Your task to perform on an android device: See recent photos Image 0: 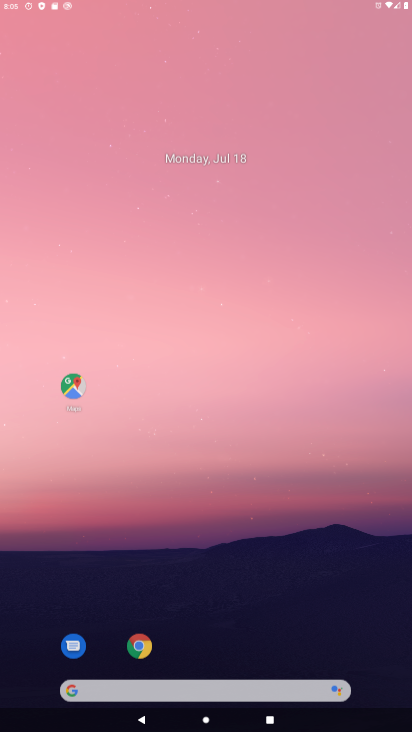
Step 0: click (237, 4)
Your task to perform on an android device: See recent photos Image 1: 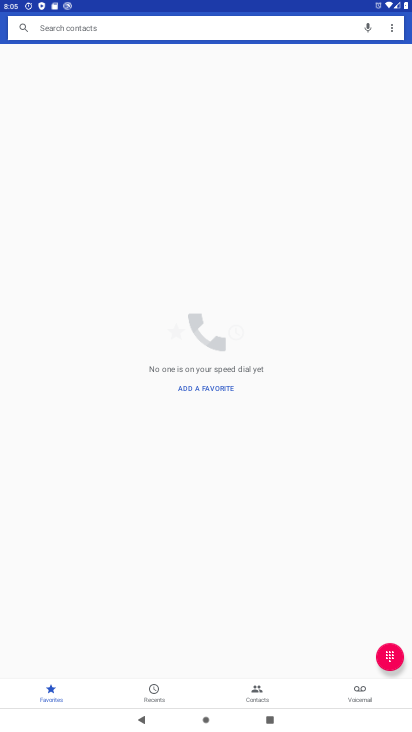
Step 1: press home button
Your task to perform on an android device: See recent photos Image 2: 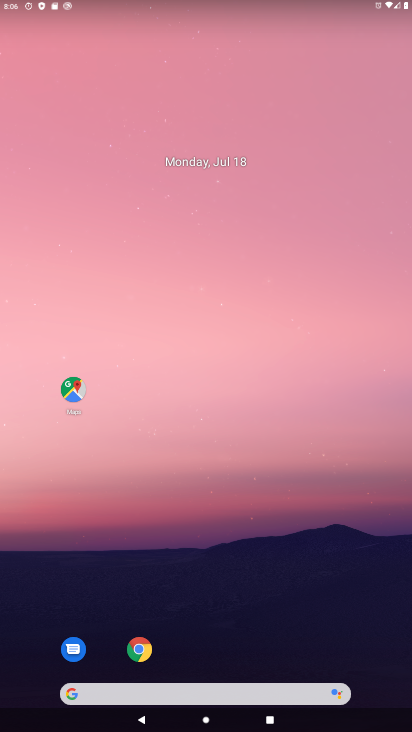
Step 2: drag from (338, 603) to (216, 173)
Your task to perform on an android device: See recent photos Image 3: 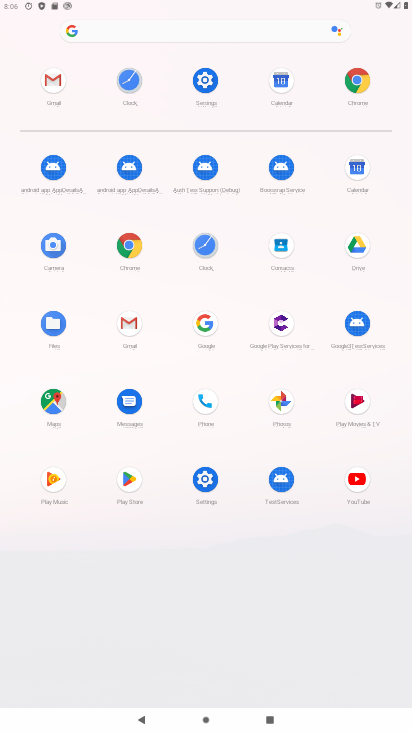
Step 3: click (274, 400)
Your task to perform on an android device: See recent photos Image 4: 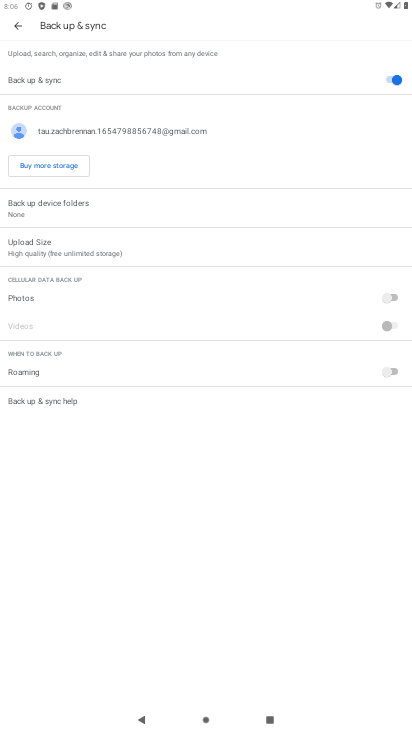
Step 4: click (15, 27)
Your task to perform on an android device: See recent photos Image 5: 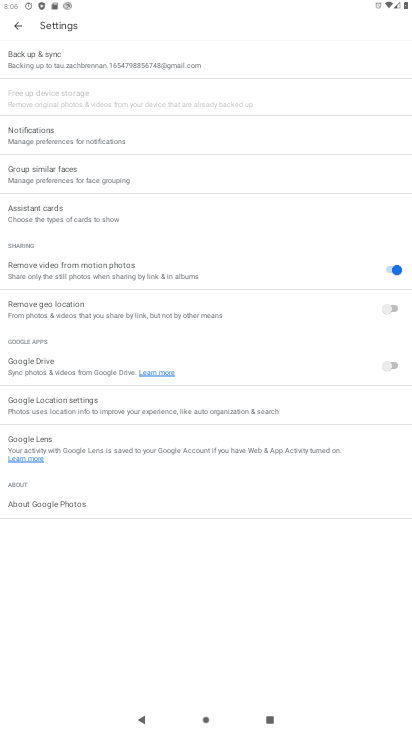
Step 5: click (15, 27)
Your task to perform on an android device: See recent photos Image 6: 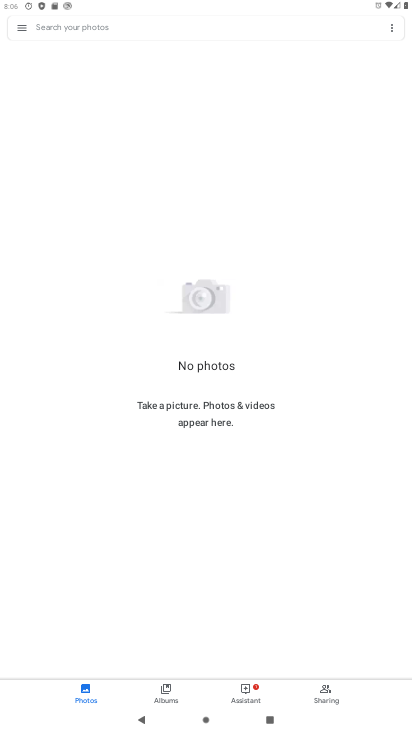
Step 6: task complete